Your task to perform on an android device: Open Youtube and go to "Your channel" Image 0: 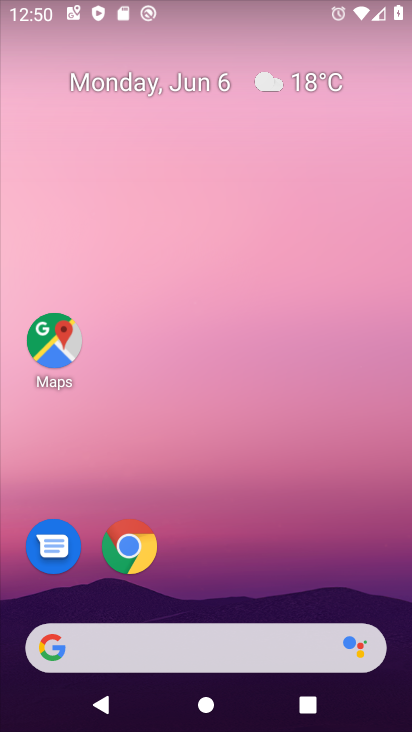
Step 0: drag from (244, 581) to (240, 129)
Your task to perform on an android device: Open Youtube and go to "Your channel" Image 1: 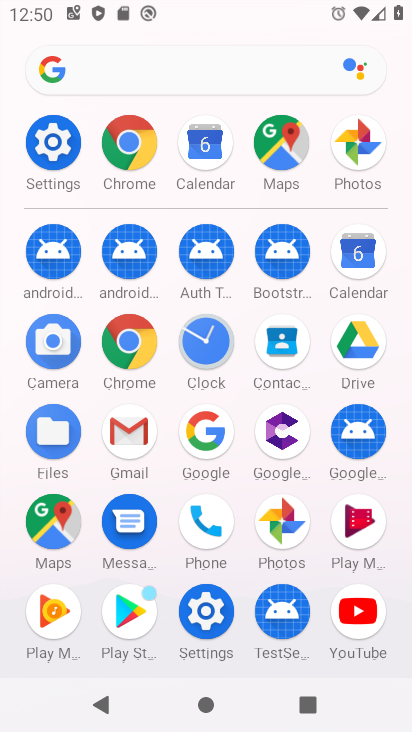
Step 1: click (377, 611)
Your task to perform on an android device: Open Youtube and go to "Your channel" Image 2: 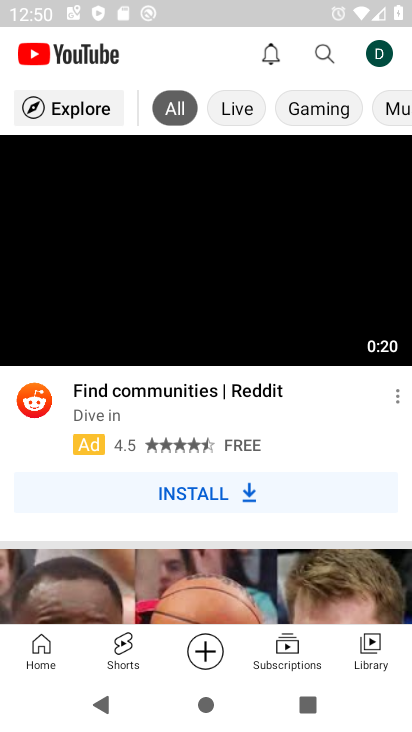
Step 2: click (374, 60)
Your task to perform on an android device: Open Youtube and go to "Your channel" Image 3: 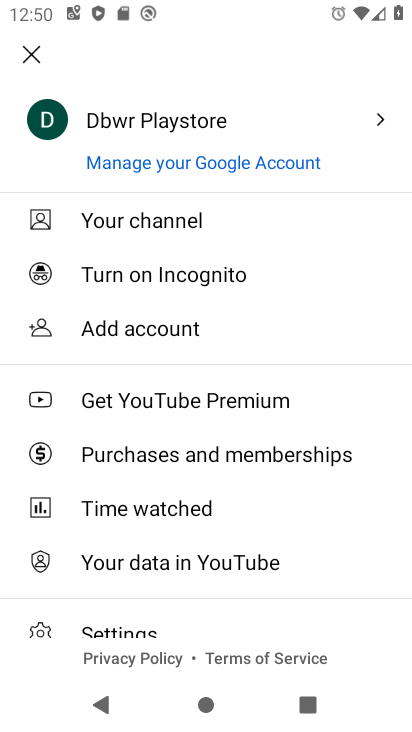
Step 3: click (140, 225)
Your task to perform on an android device: Open Youtube and go to "Your channel" Image 4: 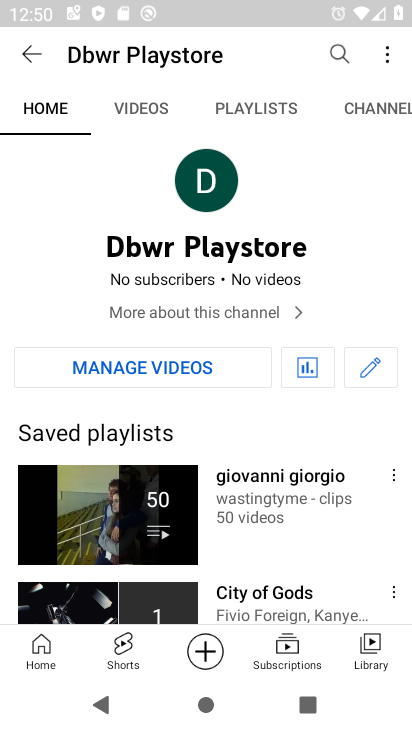
Step 4: task complete